Your task to perform on an android device: Go to notification settings Image 0: 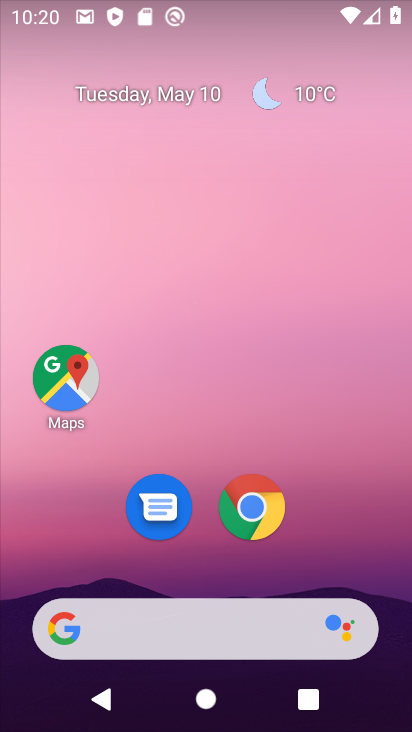
Step 0: drag from (231, 723) to (226, 112)
Your task to perform on an android device: Go to notification settings Image 1: 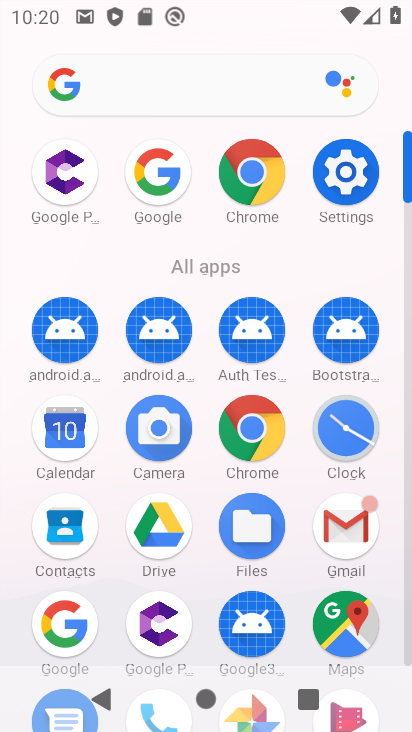
Step 1: click (350, 163)
Your task to perform on an android device: Go to notification settings Image 2: 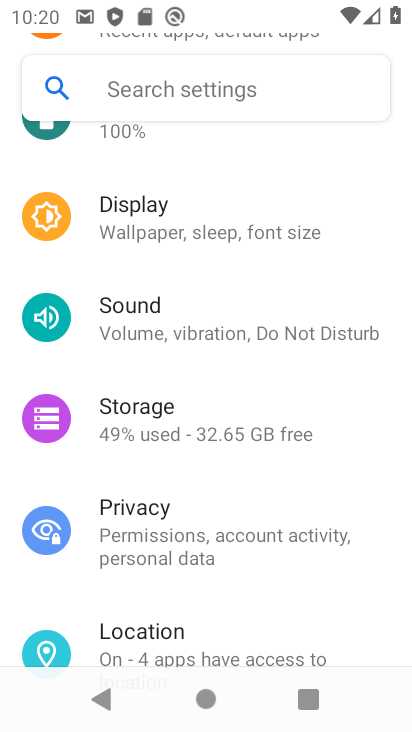
Step 2: drag from (224, 183) to (235, 519)
Your task to perform on an android device: Go to notification settings Image 3: 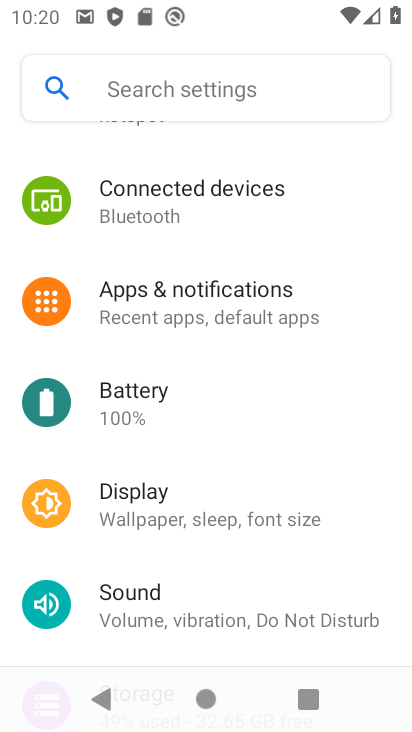
Step 3: click (219, 305)
Your task to perform on an android device: Go to notification settings Image 4: 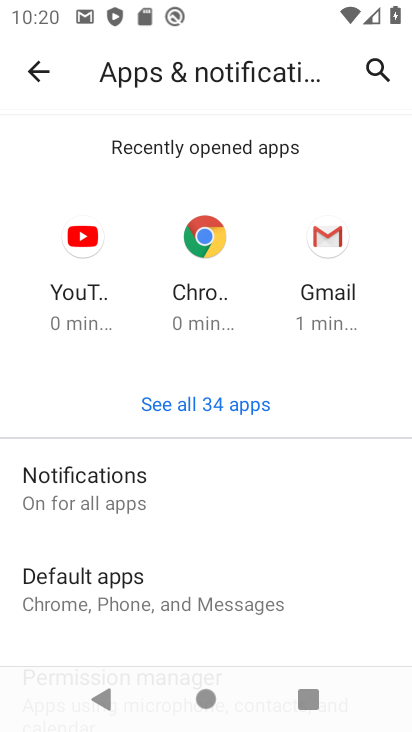
Step 4: click (84, 484)
Your task to perform on an android device: Go to notification settings Image 5: 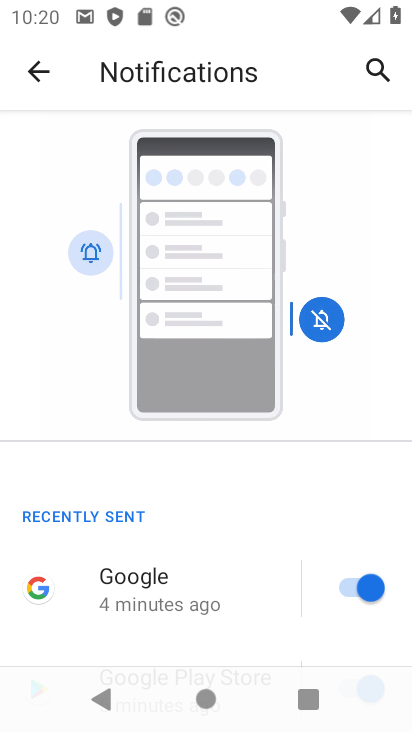
Step 5: task complete